Your task to perform on an android device: turn off priority inbox in the gmail app Image 0: 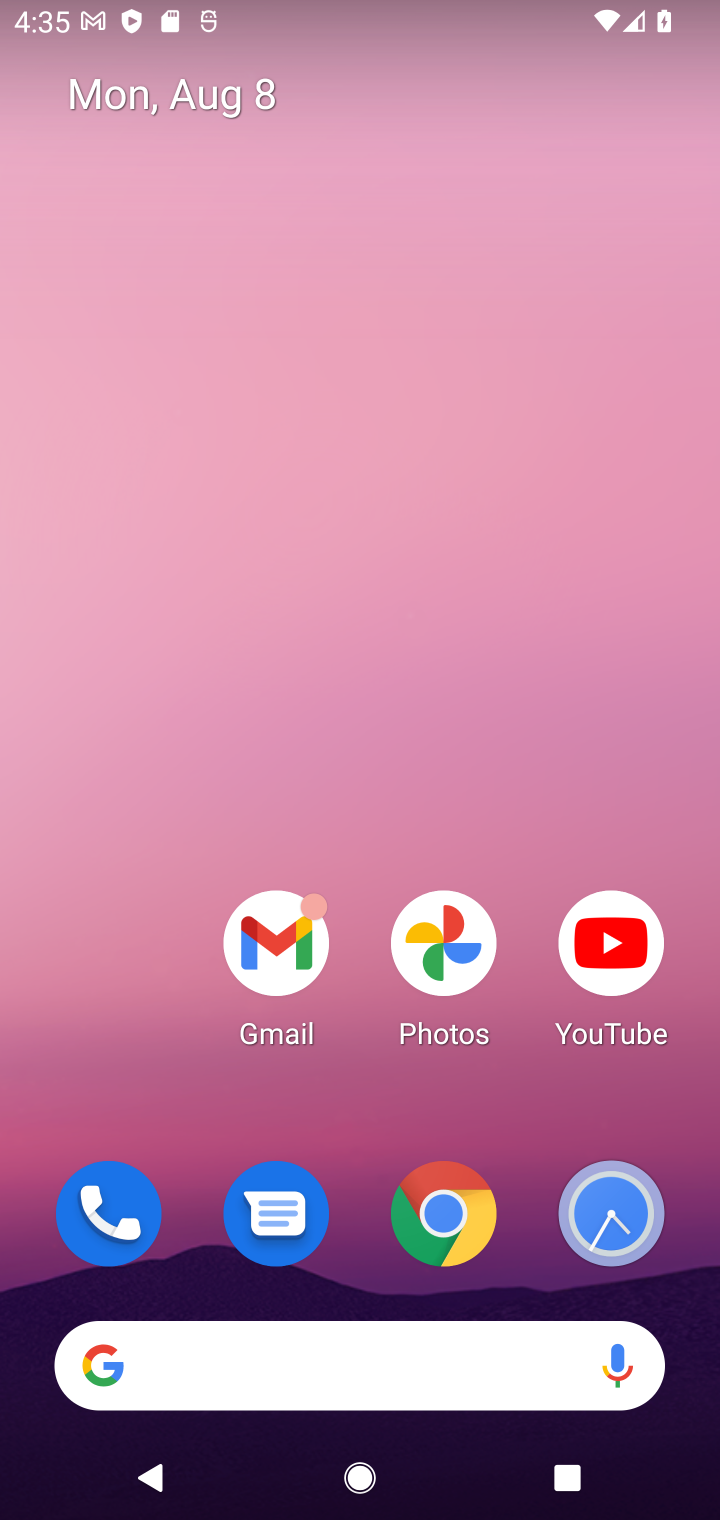
Step 0: click (281, 969)
Your task to perform on an android device: turn off priority inbox in the gmail app Image 1: 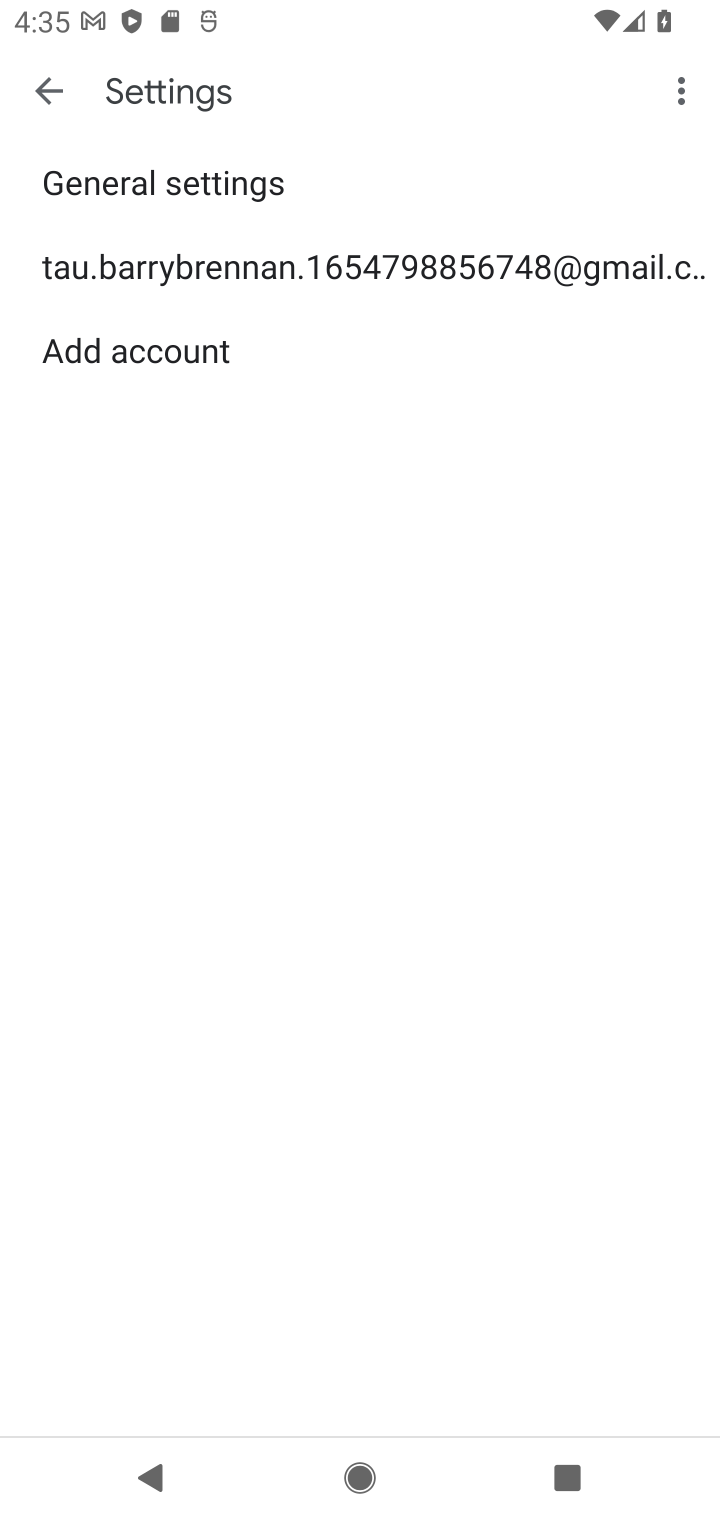
Step 1: click (197, 277)
Your task to perform on an android device: turn off priority inbox in the gmail app Image 2: 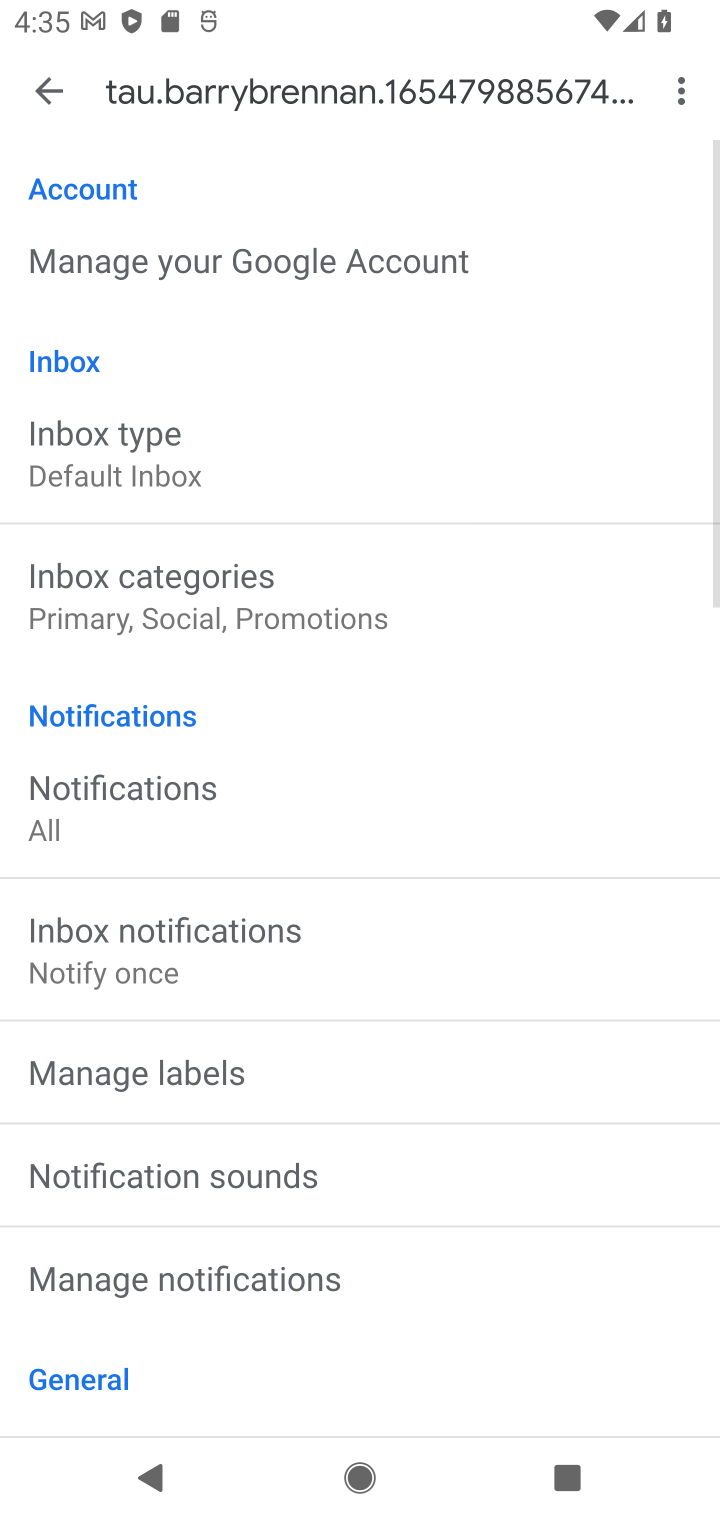
Step 2: click (160, 465)
Your task to perform on an android device: turn off priority inbox in the gmail app Image 3: 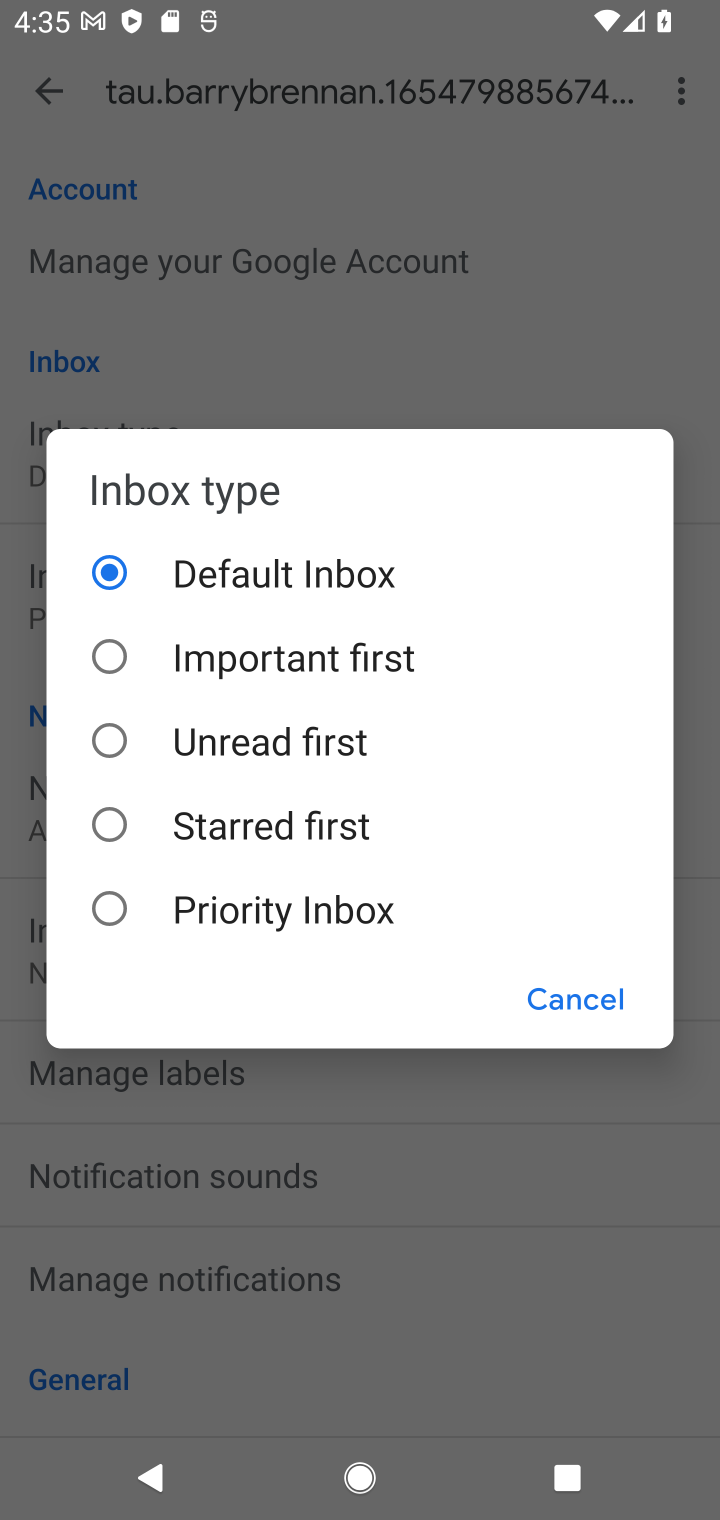
Step 3: click (325, 558)
Your task to perform on an android device: turn off priority inbox in the gmail app Image 4: 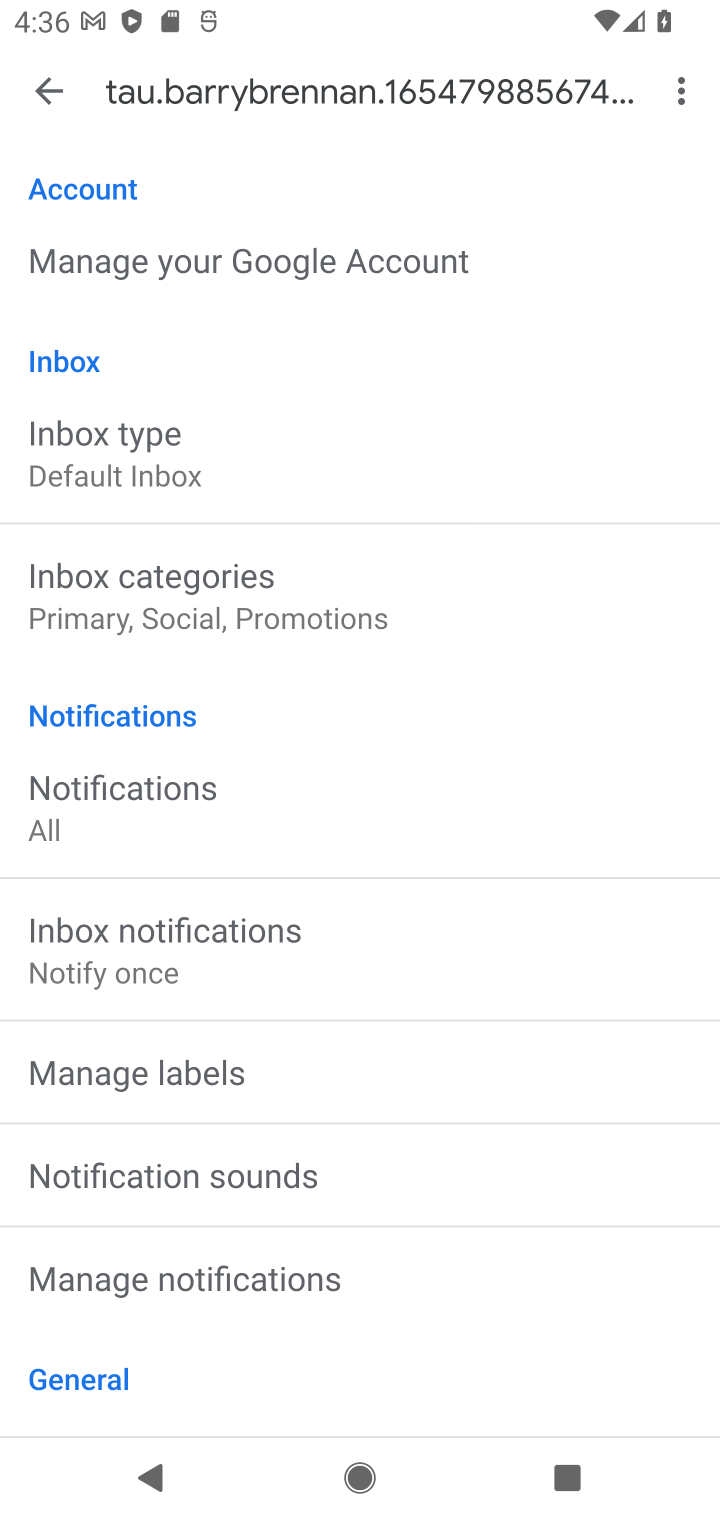
Step 4: task complete